Your task to perform on an android device: Check the news Image 0: 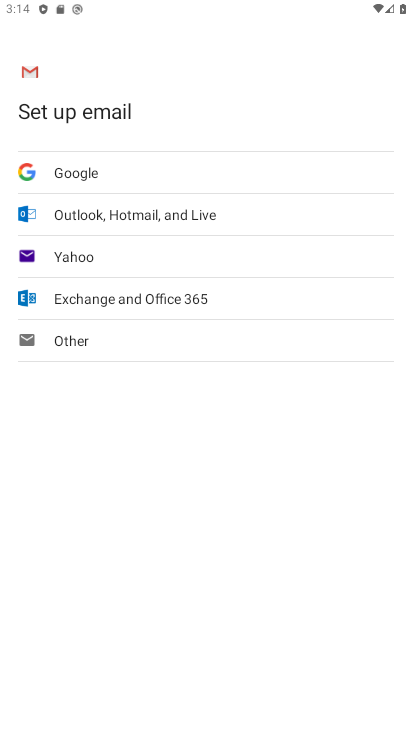
Step 0: press home button
Your task to perform on an android device: Check the news Image 1: 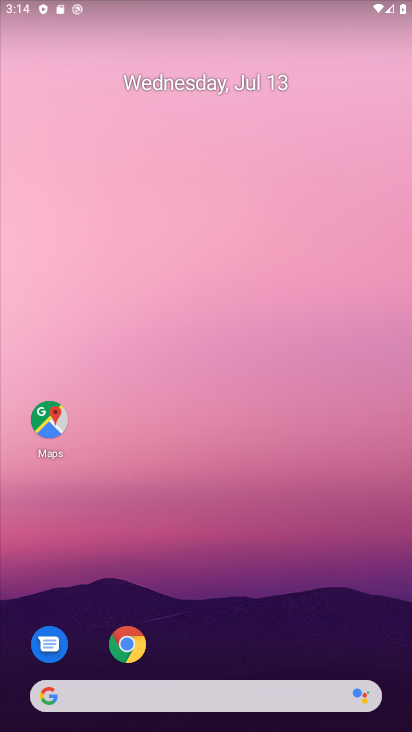
Step 1: drag from (161, 692) to (156, 124)
Your task to perform on an android device: Check the news Image 2: 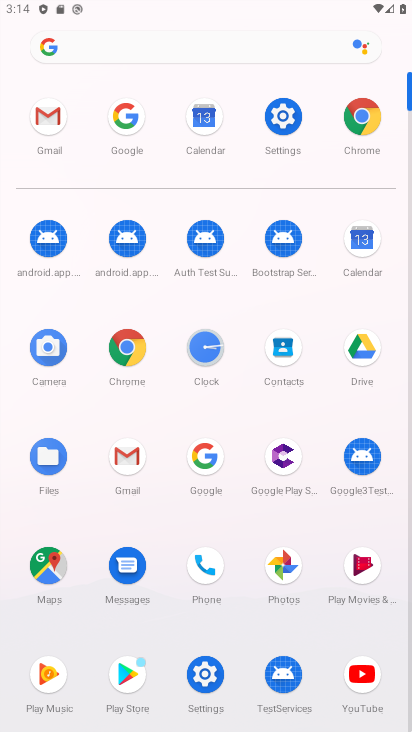
Step 2: click (130, 114)
Your task to perform on an android device: Check the news Image 3: 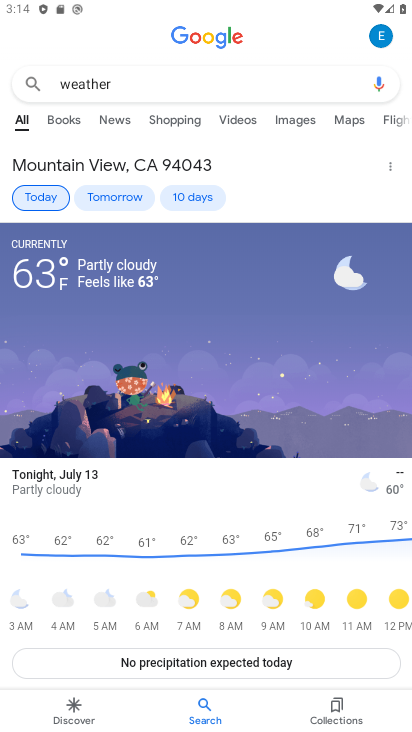
Step 3: click (155, 85)
Your task to perform on an android device: Check the news Image 4: 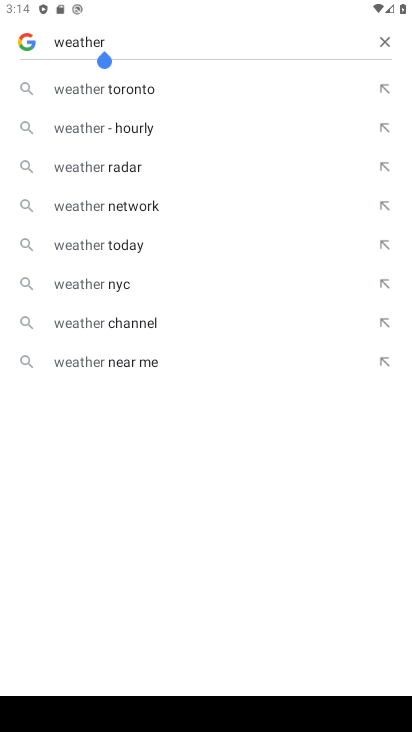
Step 4: click (385, 38)
Your task to perform on an android device: Check the news Image 5: 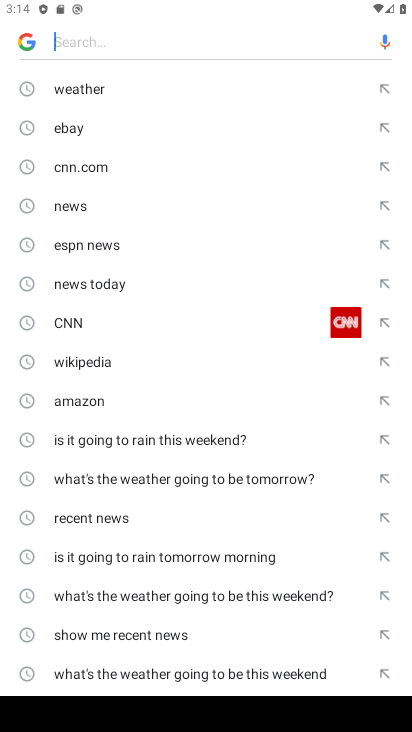
Step 5: click (59, 210)
Your task to perform on an android device: Check the news Image 6: 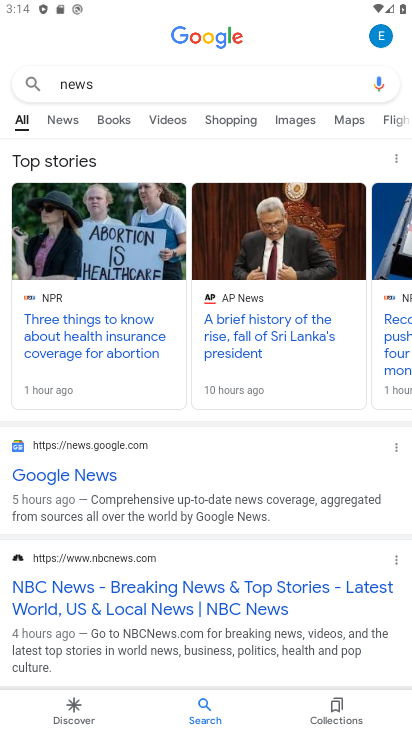
Step 6: click (88, 342)
Your task to perform on an android device: Check the news Image 7: 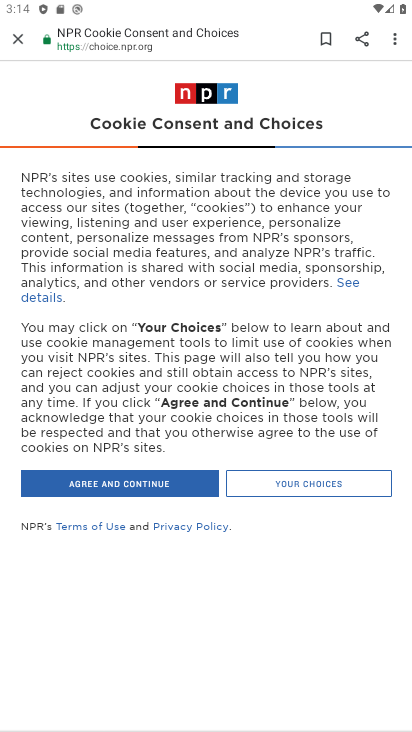
Step 7: click (146, 482)
Your task to perform on an android device: Check the news Image 8: 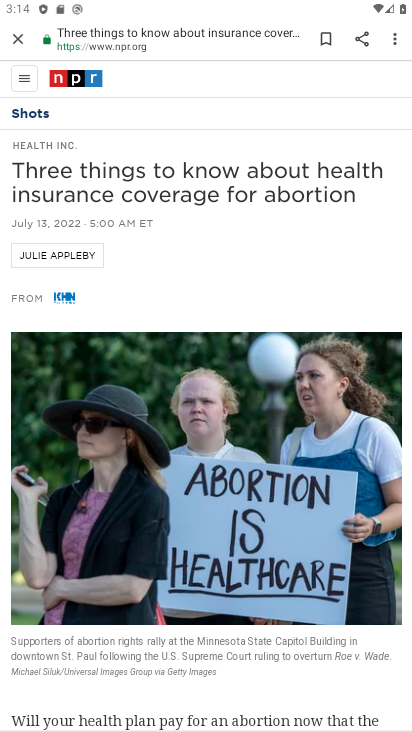
Step 8: task complete